Your task to perform on an android device: empty trash in google photos Image 0: 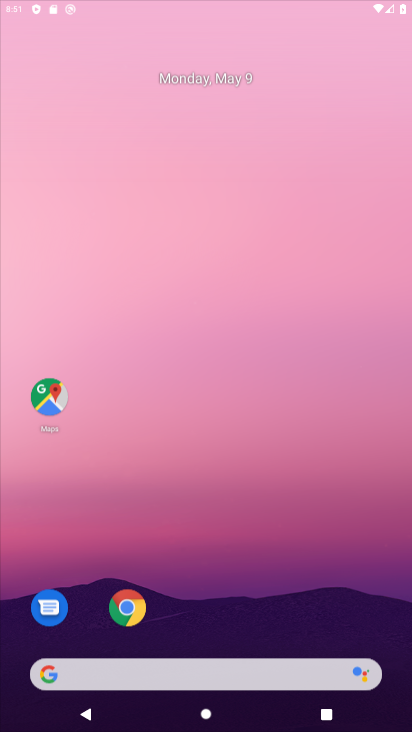
Step 0: press home button
Your task to perform on an android device: empty trash in google photos Image 1: 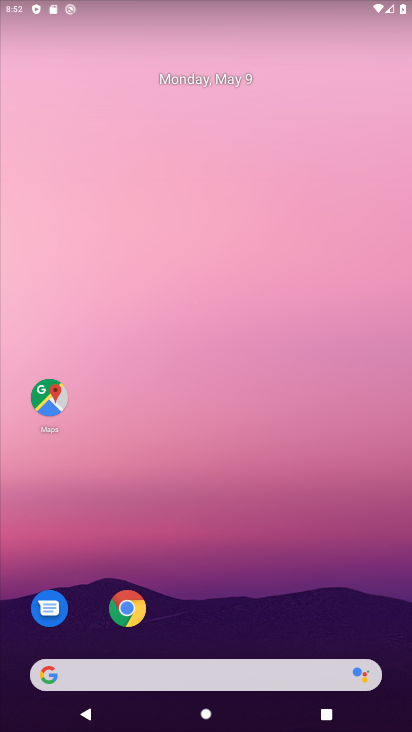
Step 1: drag from (311, 621) to (287, 68)
Your task to perform on an android device: empty trash in google photos Image 2: 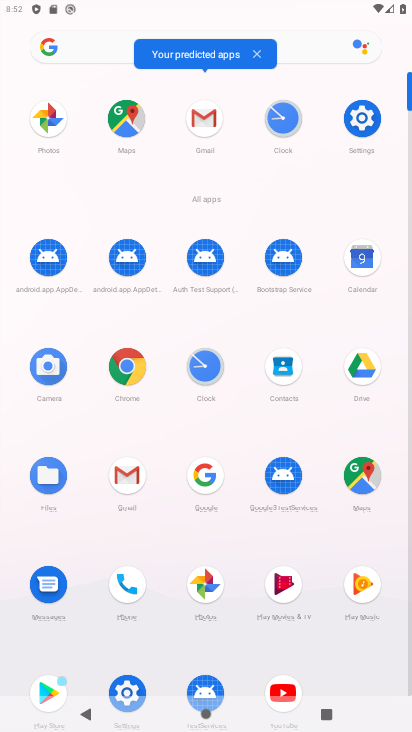
Step 2: click (32, 119)
Your task to perform on an android device: empty trash in google photos Image 3: 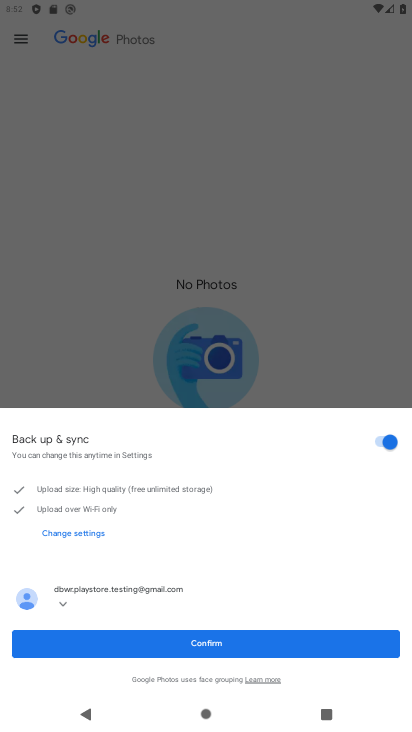
Step 3: click (199, 643)
Your task to perform on an android device: empty trash in google photos Image 4: 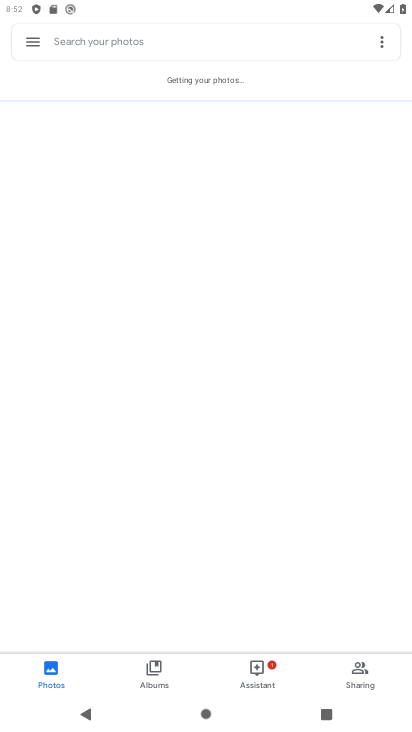
Step 4: click (26, 39)
Your task to perform on an android device: empty trash in google photos Image 5: 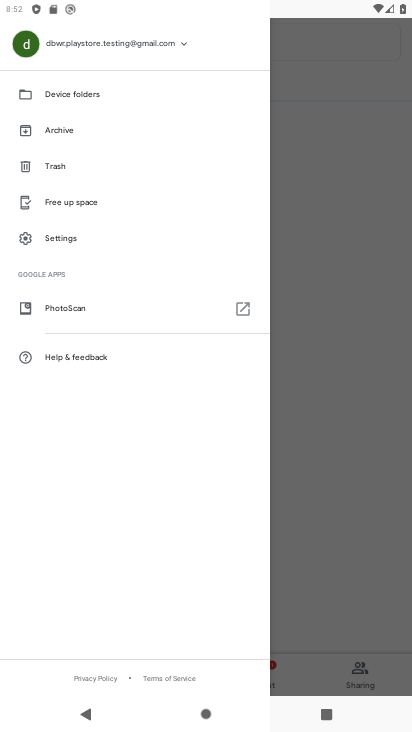
Step 5: click (58, 173)
Your task to perform on an android device: empty trash in google photos Image 6: 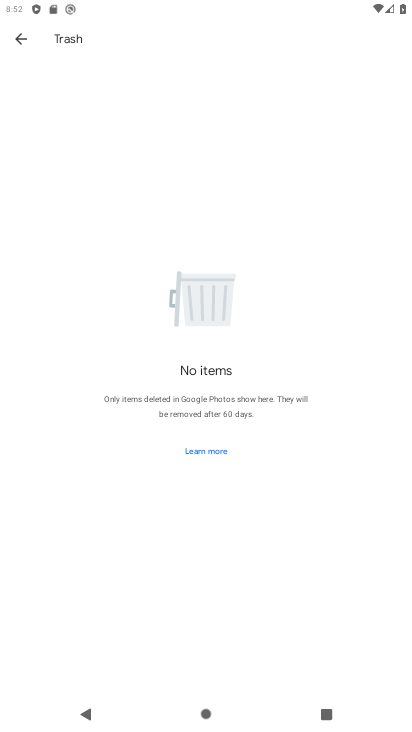
Step 6: task complete